Your task to perform on an android device: Go to Maps Image 0: 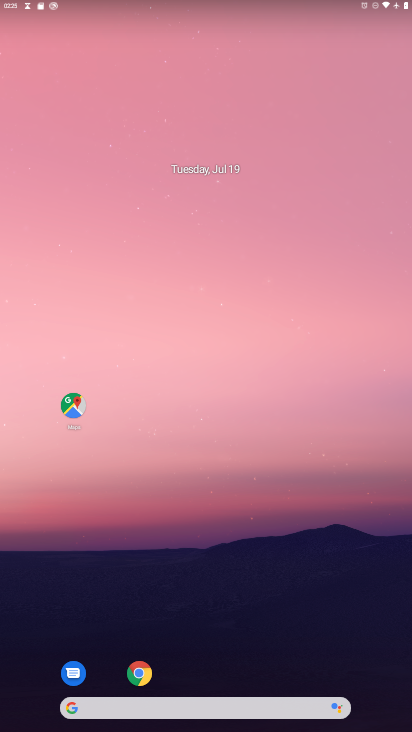
Step 0: drag from (211, 710) to (230, 481)
Your task to perform on an android device: Go to Maps Image 1: 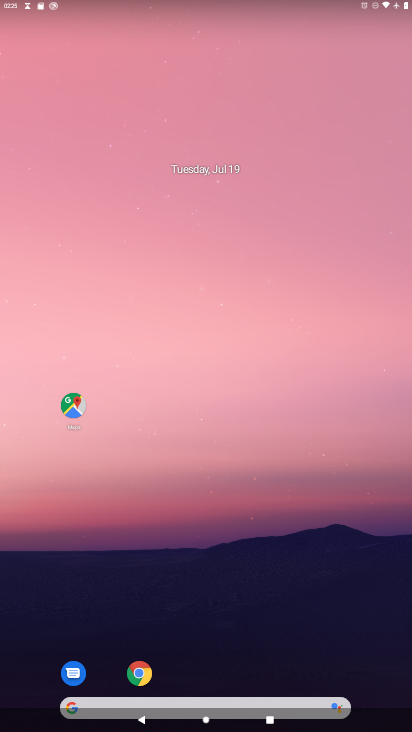
Step 1: drag from (253, 682) to (264, 423)
Your task to perform on an android device: Go to Maps Image 2: 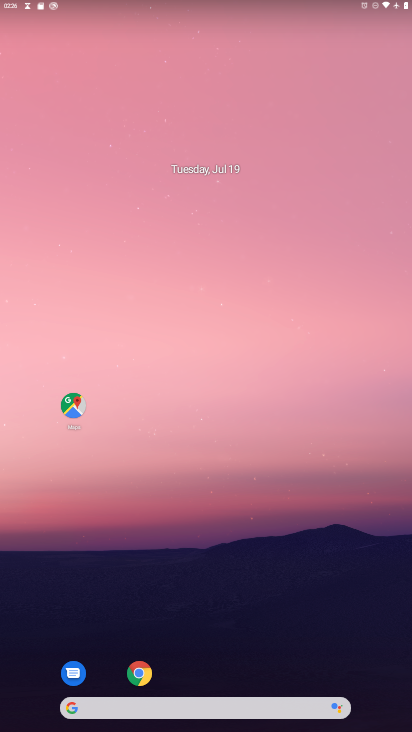
Step 2: click (65, 408)
Your task to perform on an android device: Go to Maps Image 3: 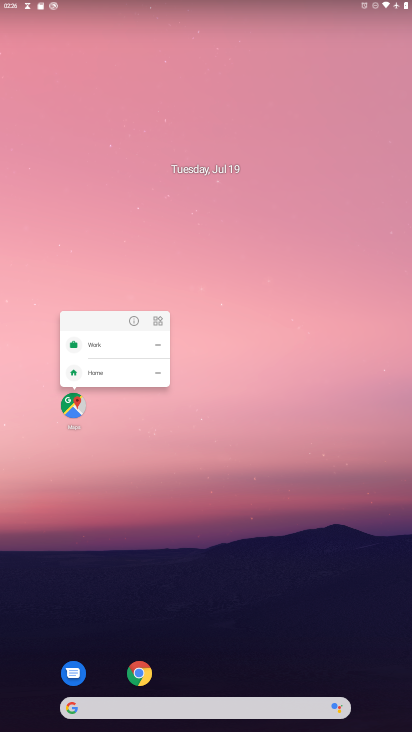
Step 3: click (80, 410)
Your task to perform on an android device: Go to Maps Image 4: 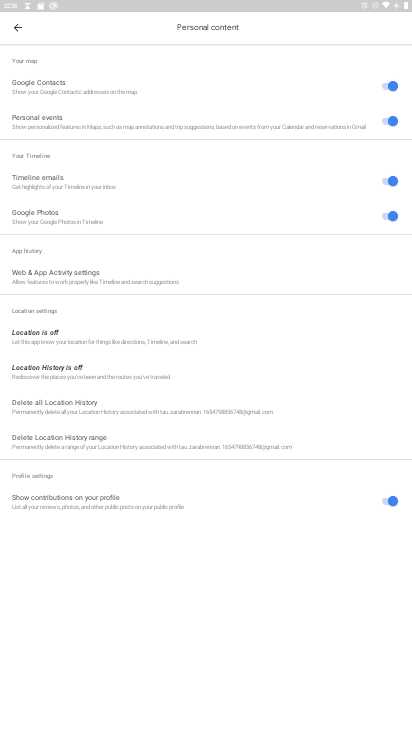
Step 4: click (27, 20)
Your task to perform on an android device: Go to Maps Image 5: 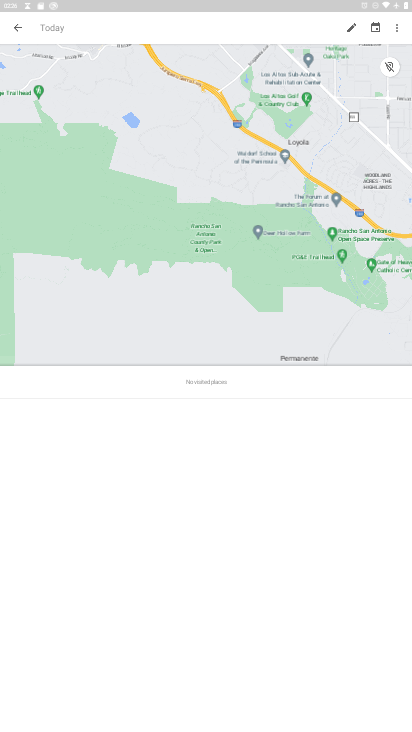
Step 5: click (25, 19)
Your task to perform on an android device: Go to Maps Image 6: 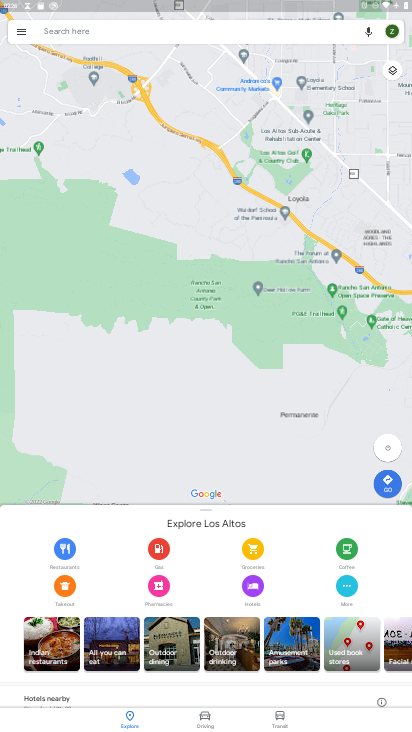
Step 6: task complete